Your task to perform on an android device: Go to network settings Image 0: 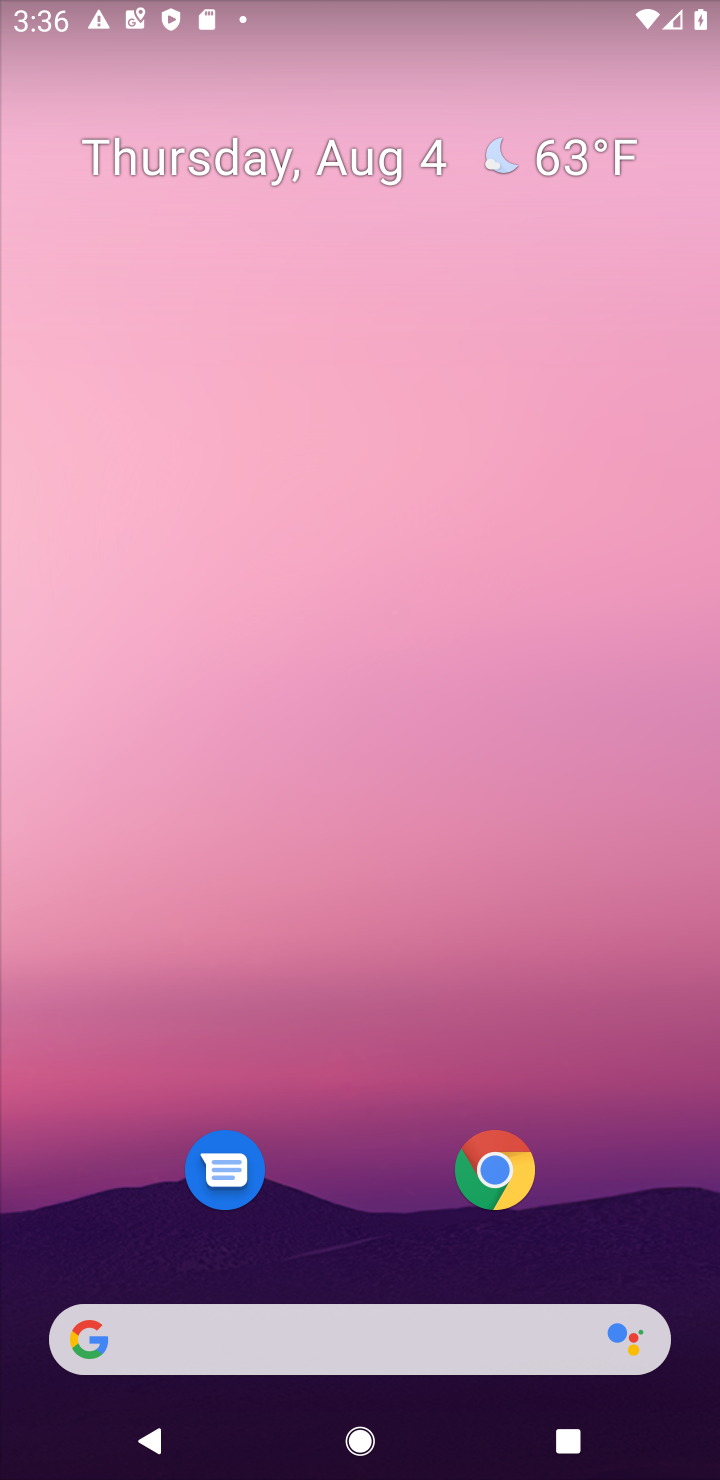
Step 0: drag from (638, 1240) to (610, 243)
Your task to perform on an android device: Go to network settings Image 1: 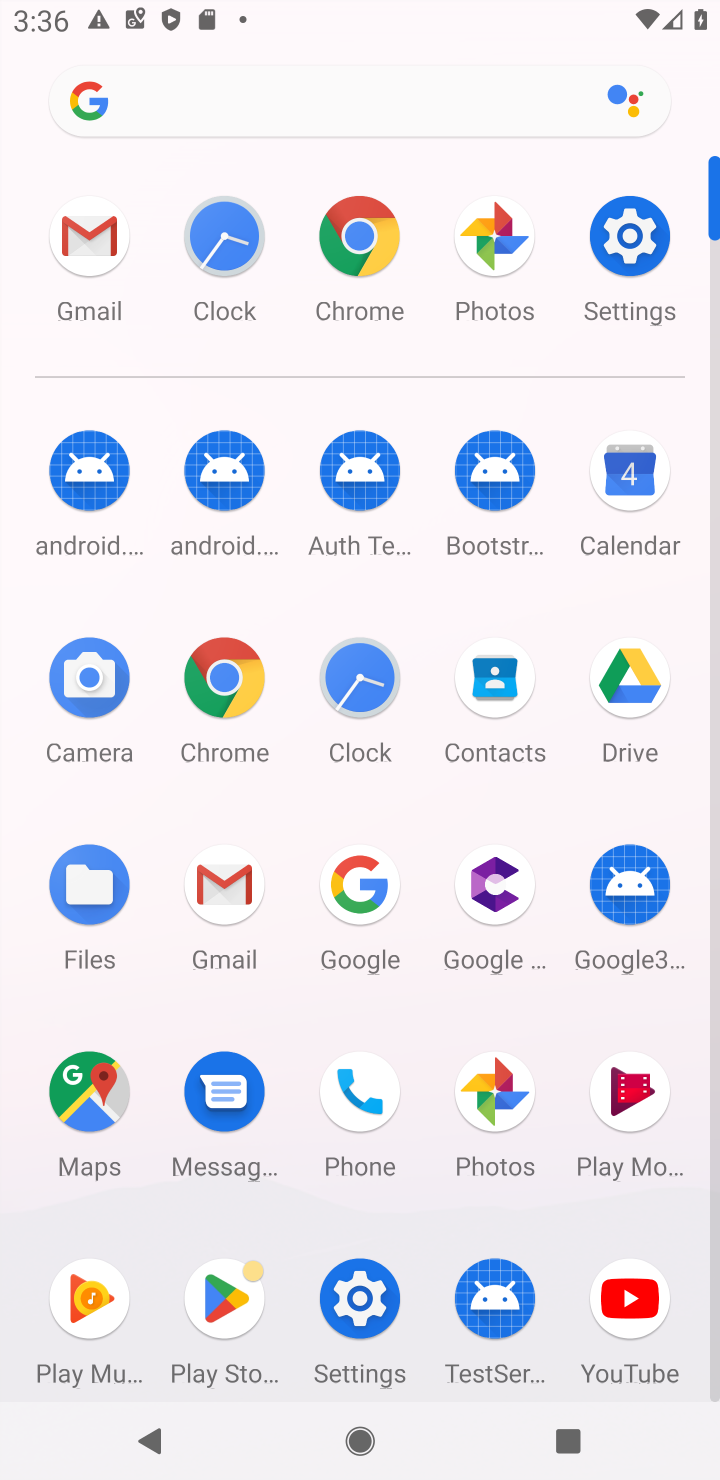
Step 1: click (355, 1301)
Your task to perform on an android device: Go to network settings Image 2: 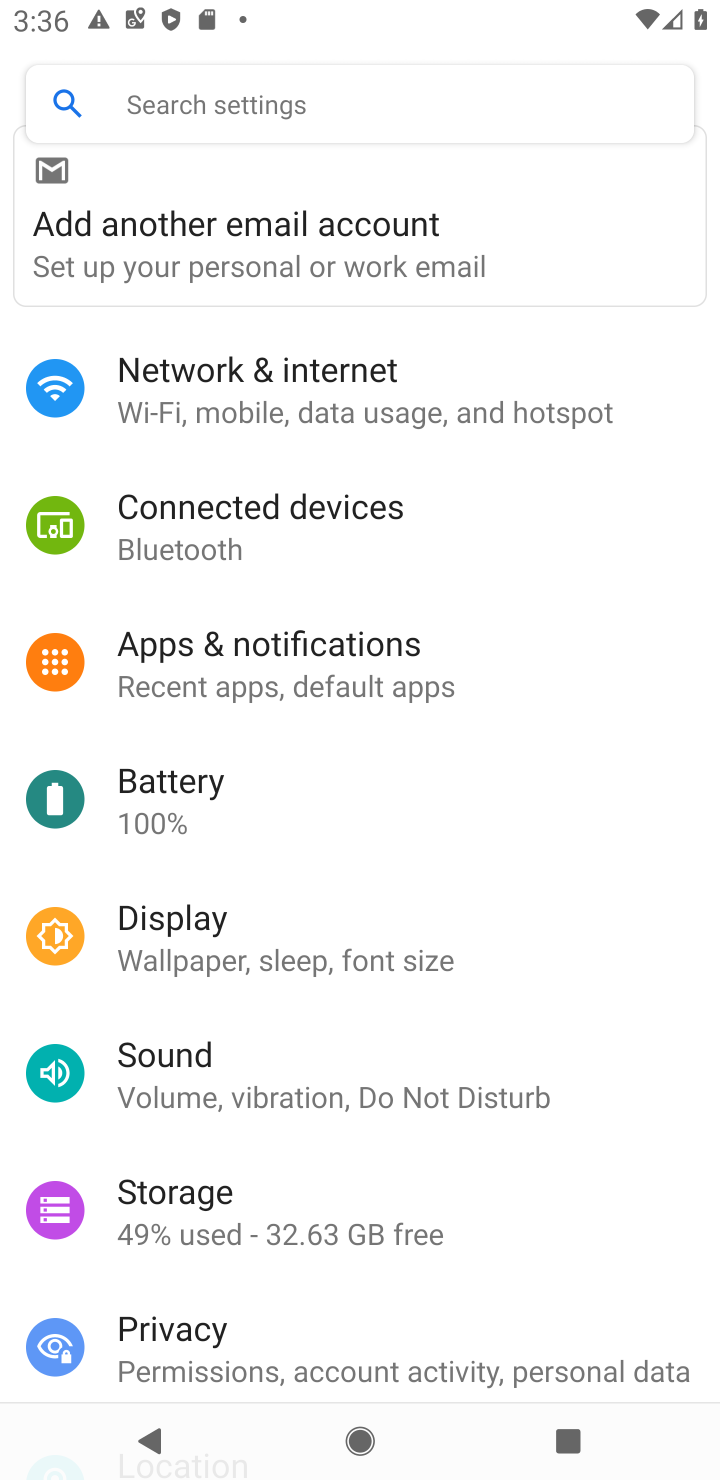
Step 2: click (168, 373)
Your task to perform on an android device: Go to network settings Image 3: 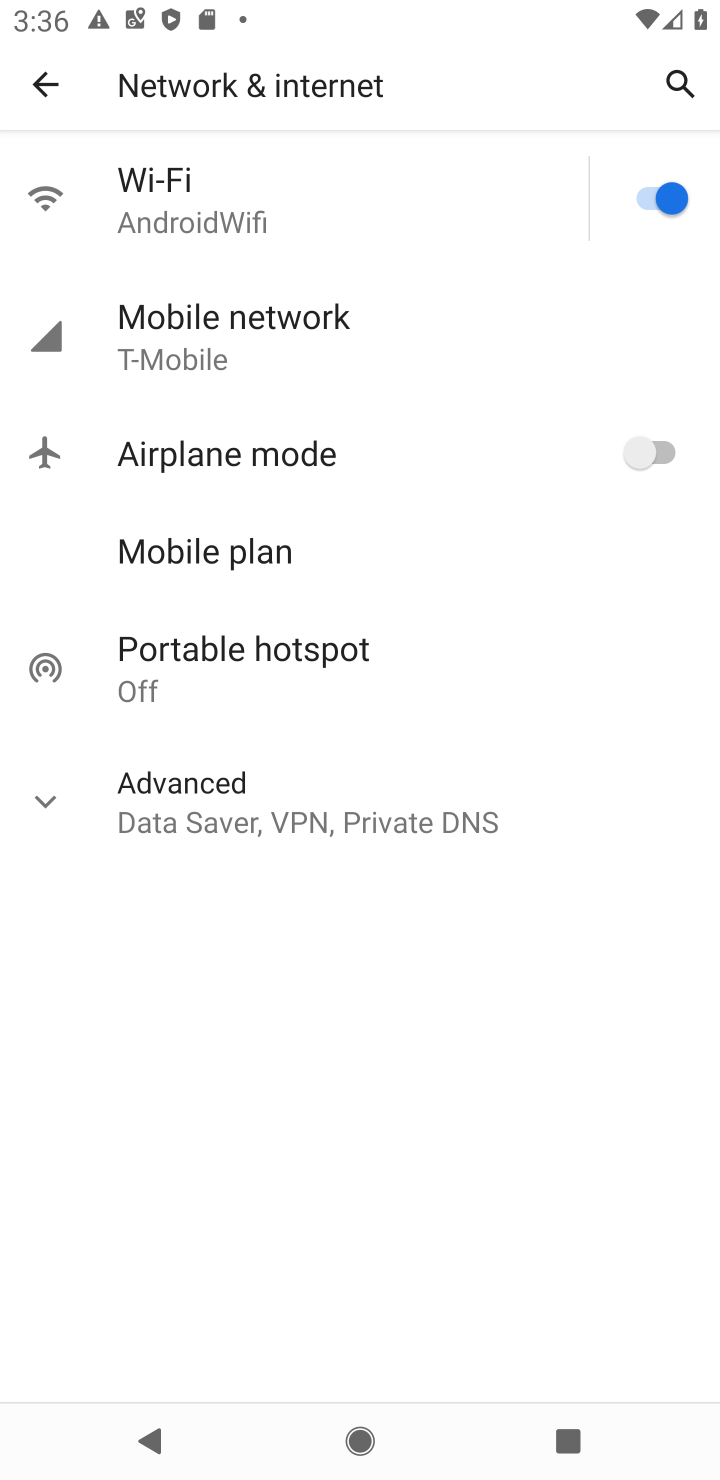
Step 3: click (178, 331)
Your task to perform on an android device: Go to network settings Image 4: 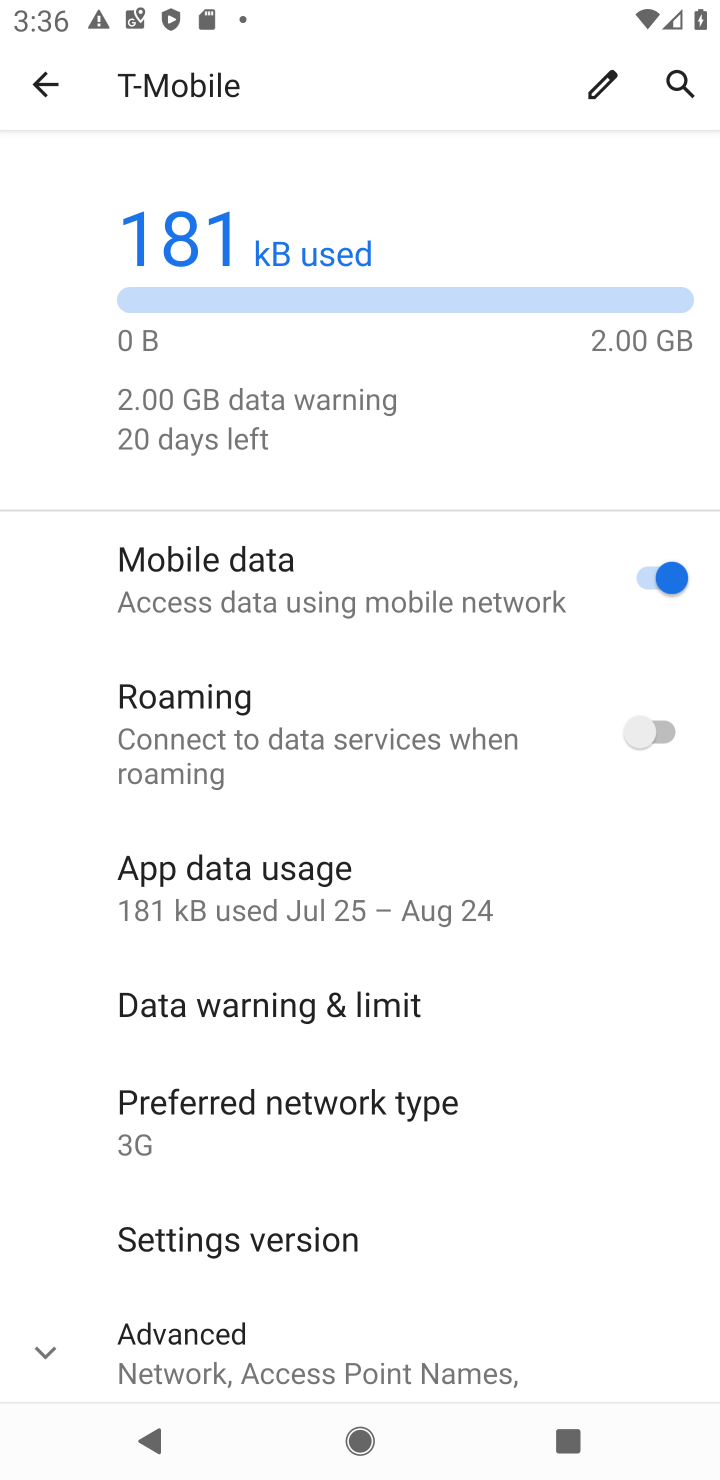
Step 4: task complete